Your task to perform on an android device: Check the weather Image 0: 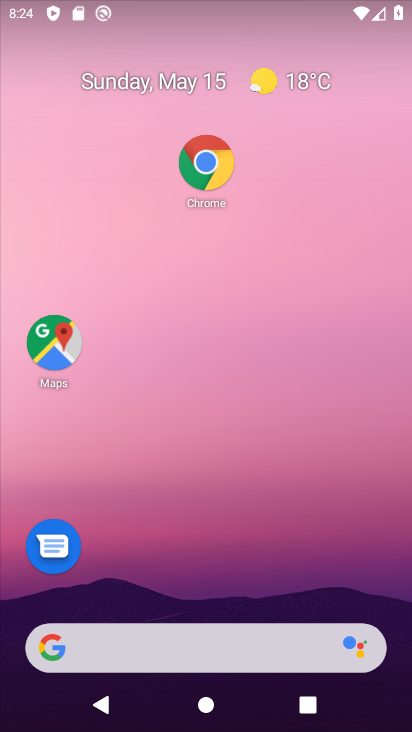
Step 0: drag from (252, 516) to (309, 114)
Your task to perform on an android device: Check the weather Image 1: 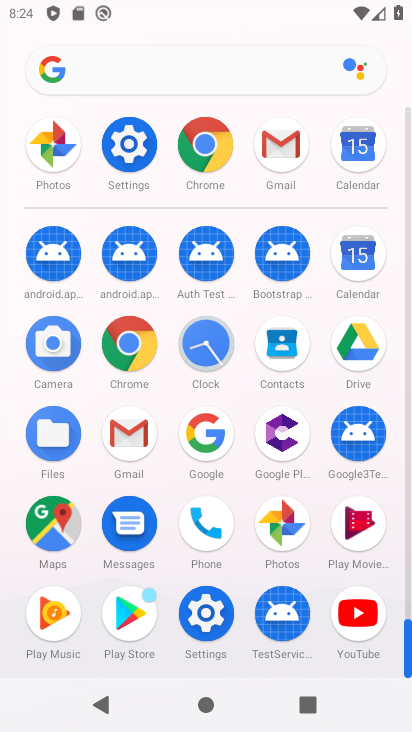
Step 1: click (191, 139)
Your task to perform on an android device: Check the weather Image 2: 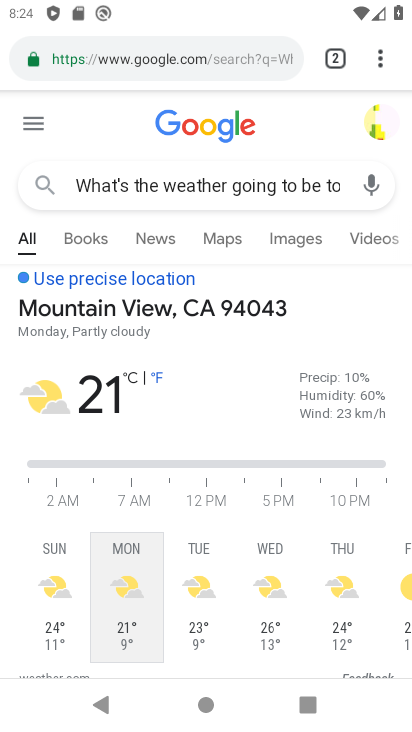
Step 2: click (368, 54)
Your task to perform on an android device: Check the weather Image 3: 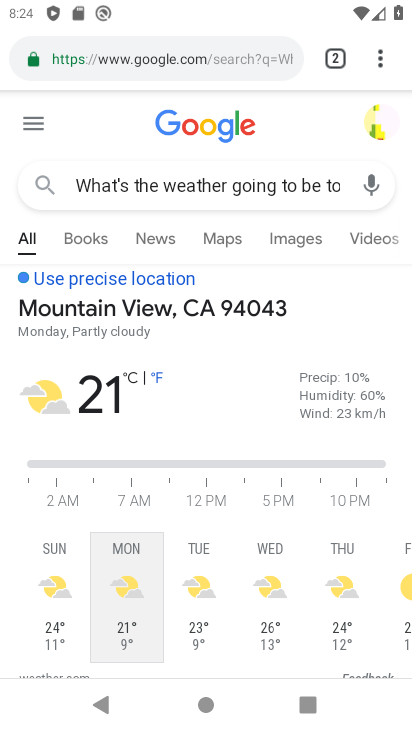
Step 3: click (402, 54)
Your task to perform on an android device: Check the weather Image 4: 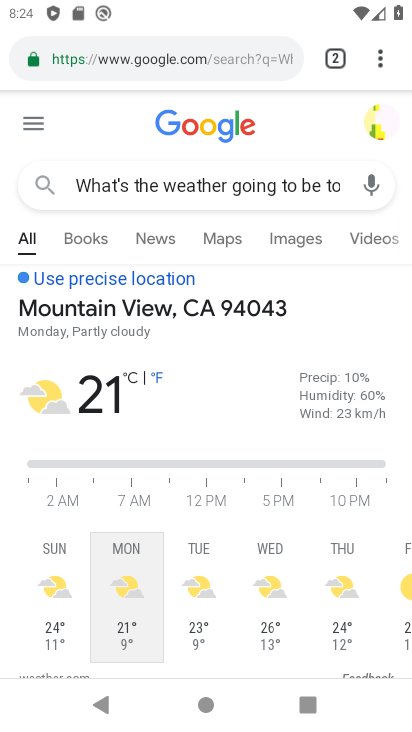
Step 4: click (397, 55)
Your task to perform on an android device: Check the weather Image 5: 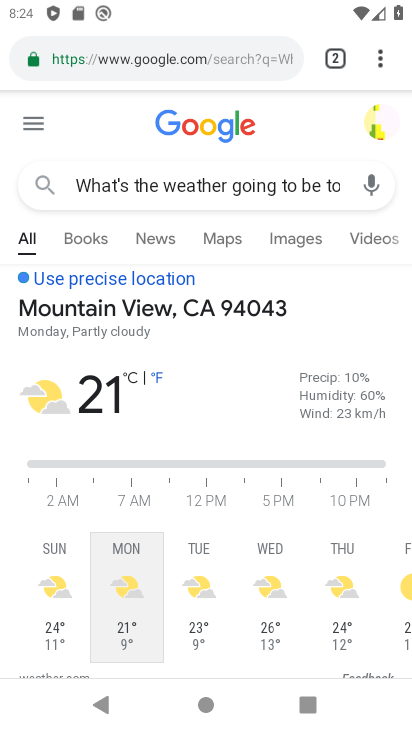
Step 5: click (383, 58)
Your task to perform on an android device: Check the weather Image 6: 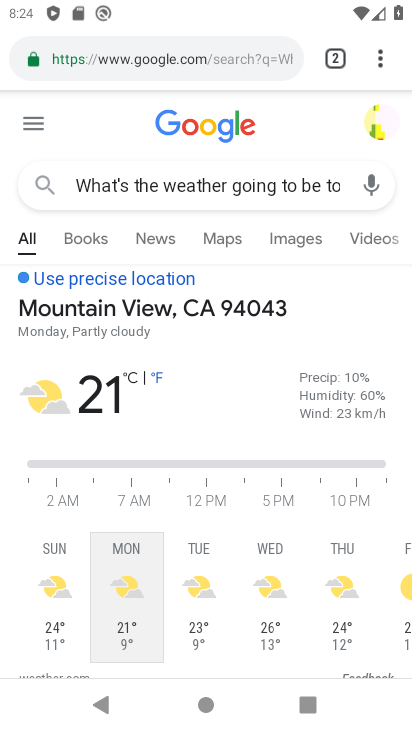
Step 6: click (367, 53)
Your task to perform on an android device: Check the weather Image 7: 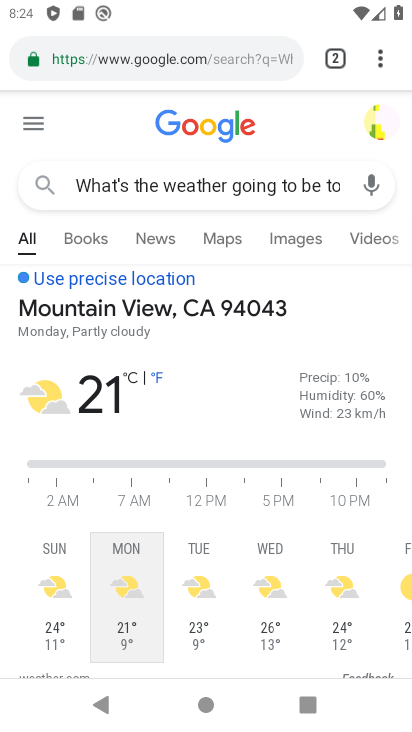
Step 7: click (364, 58)
Your task to perform on an android device: Check the weather Image 8: 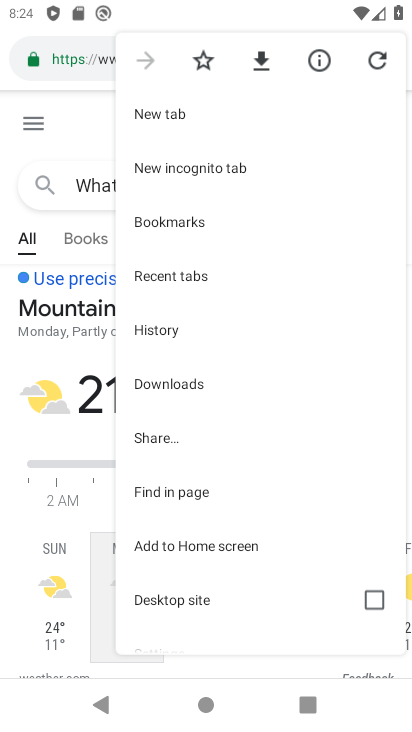
Step 8: click (193, 113)
Your task to perform on an android device: Check the weather Image 9: 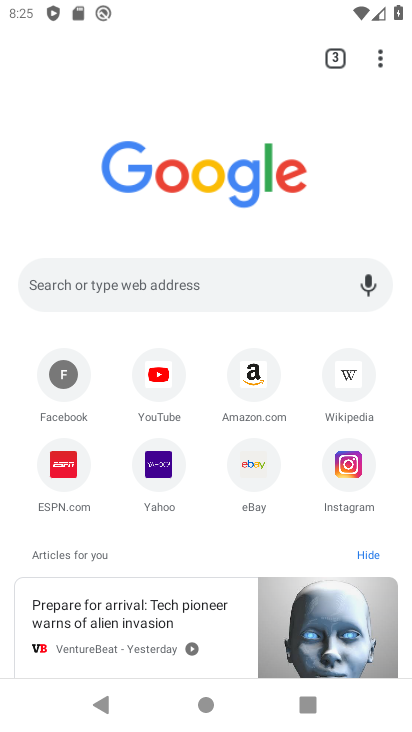
Step 9: click (213, 281)
Your task to perform on an android device: Check the weather Image 10: 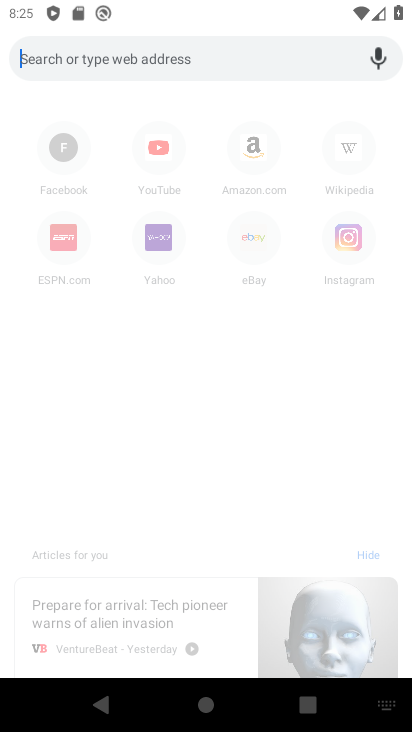
Step 10: type "Check the weather"
Your task to perform on an android device: Check the weather Image 11: 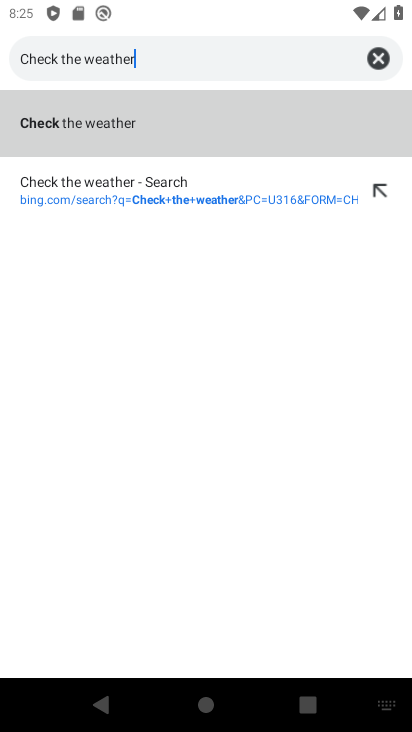
Step 11: click (202, 114)
Your task to perform on an android device: Check the weather Image 12: 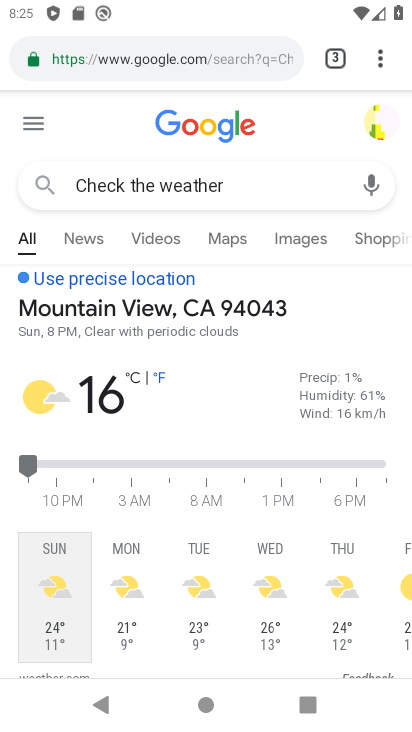
Step 12: task complete